Your task to perform on an android device: Do I have any events today? Image 0: 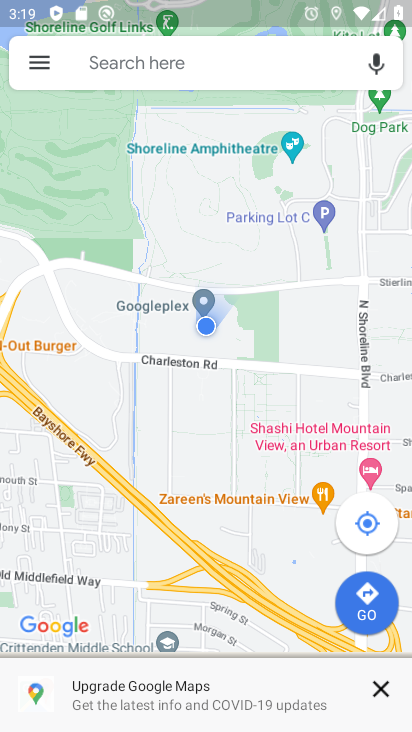
Step 0: press home button
Your task to perform on an android device: Do I have any events today? Image 1: 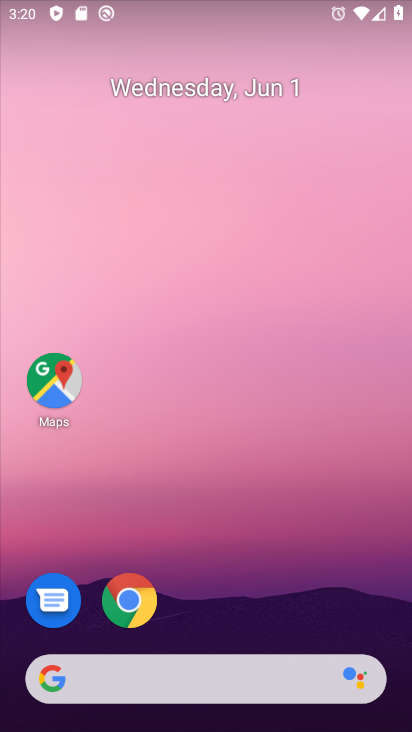
Step 1: drag from (272, 626) to (221, 170)
Your task to perform on an android device: Do I have any events today? Image 2: 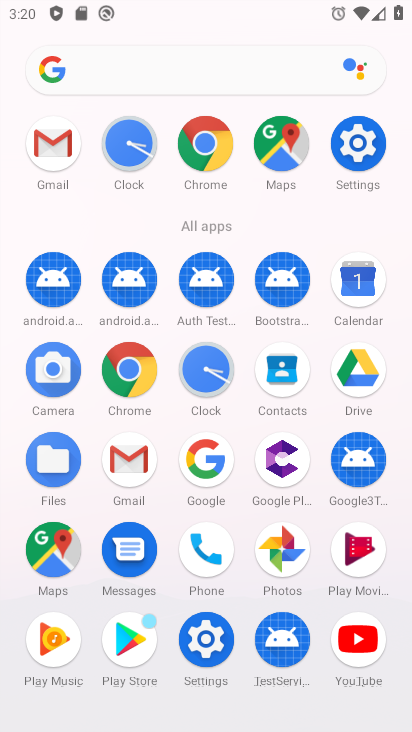
Step 2: click (360, 294)
Your task to perform on an android device: Do I have any events today? Image 3: 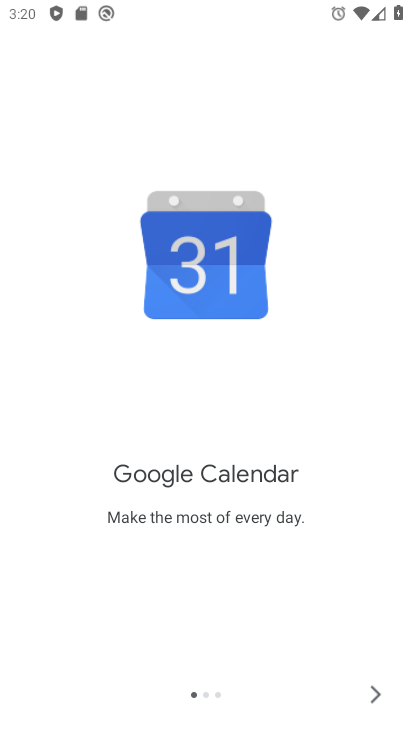
Step 3: click (381, 694)
Your task to perform on an android device: Do I have any events today? Image 4: 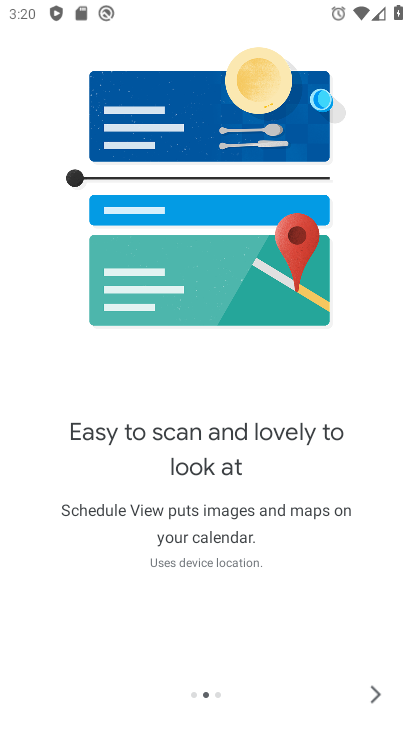
Step 4: click (380, 693)
Your task to perform on an android device: Do I have any events today? Image 5: 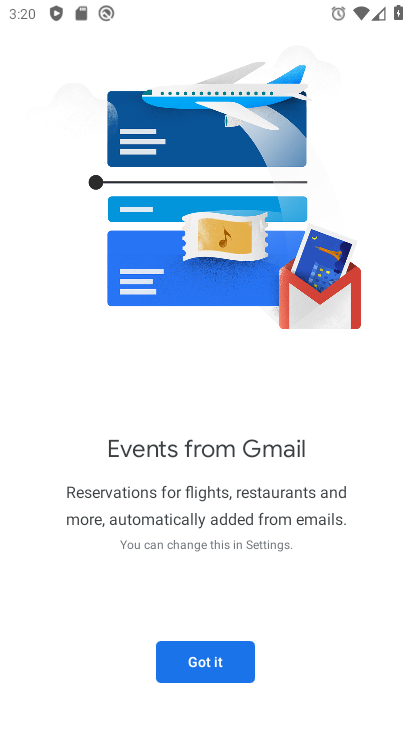
Step 5: click (366, 691)
Your task to perform on an android device: Do I have any events today? Image 6: 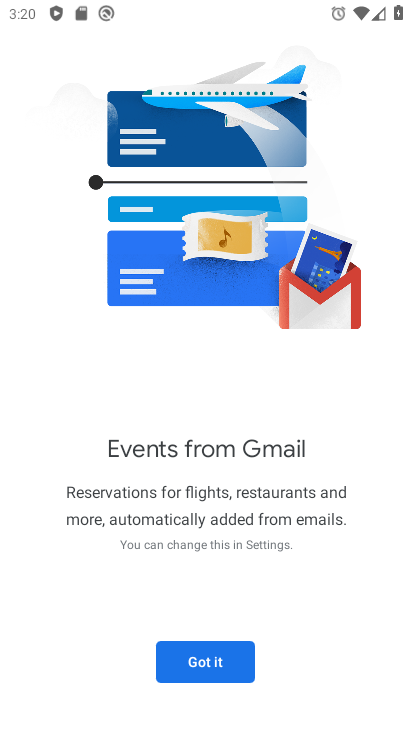
Step 6: click (192, 649)
Your task to perform on an android device: Do I have any events today? Image 7: 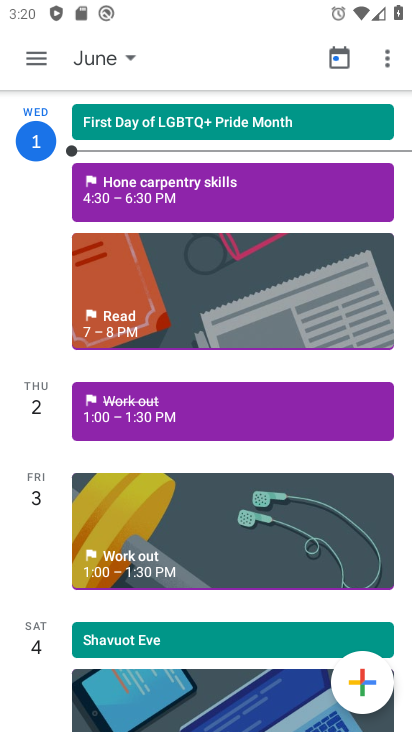
Step 7: task complete